Your task to perform on an android device: What's the weather going to be this weekend? Image 0: 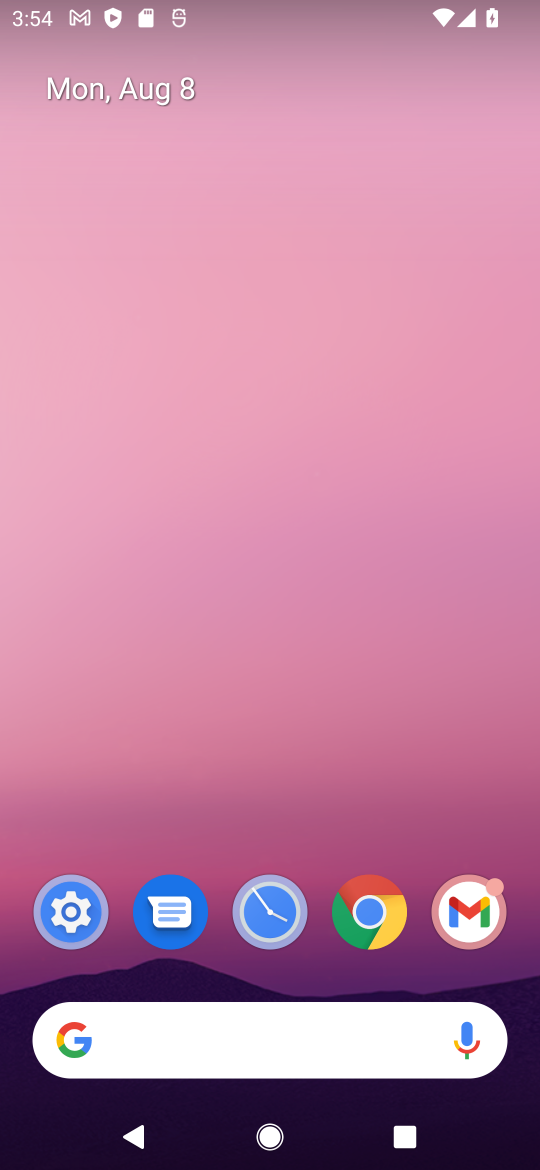
Step 0: click (262, 1040)
Your task to perform on an android device: What's the weather going to be this weekend? Image 1: 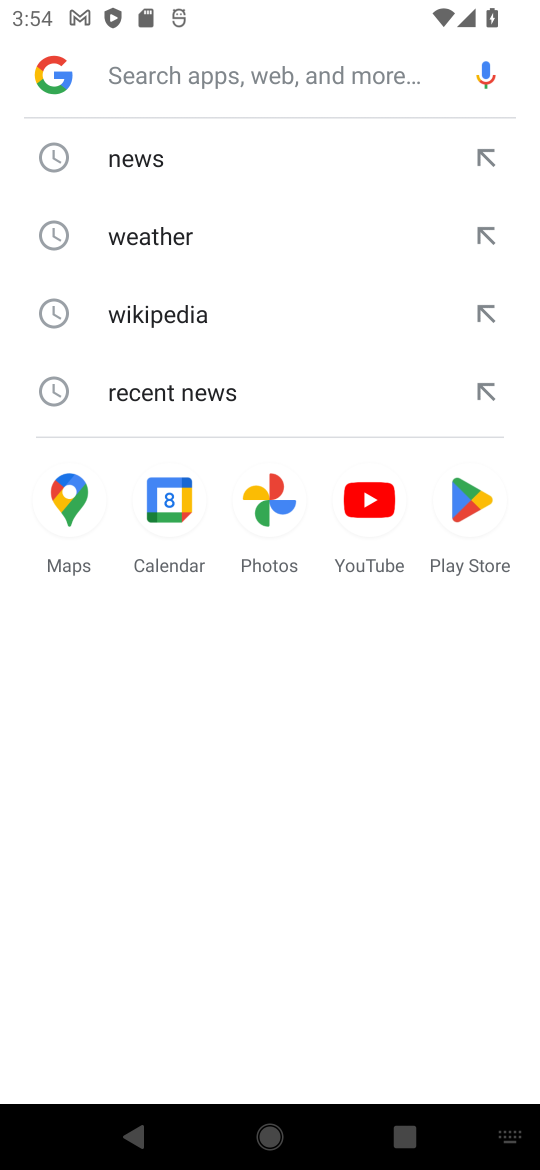
Step 1: click (172, 225)
Your task to perform on an android device: What's the weather going to be this weekend? Image 2: 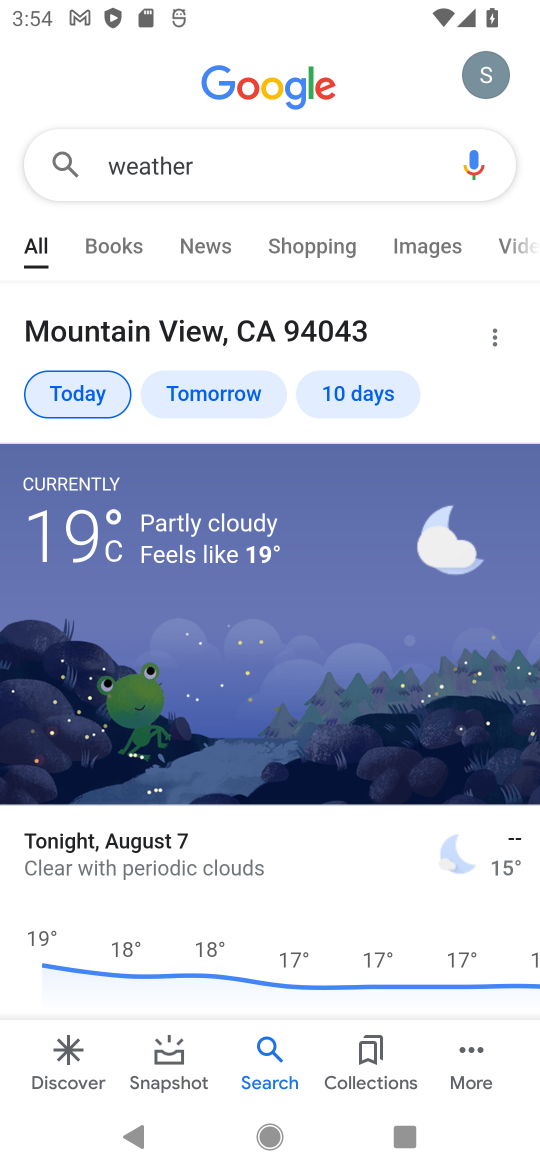
Step 2: click (368, 411)
Your task to perform on an android device: What's the weather going to be this weekend? Image 3: 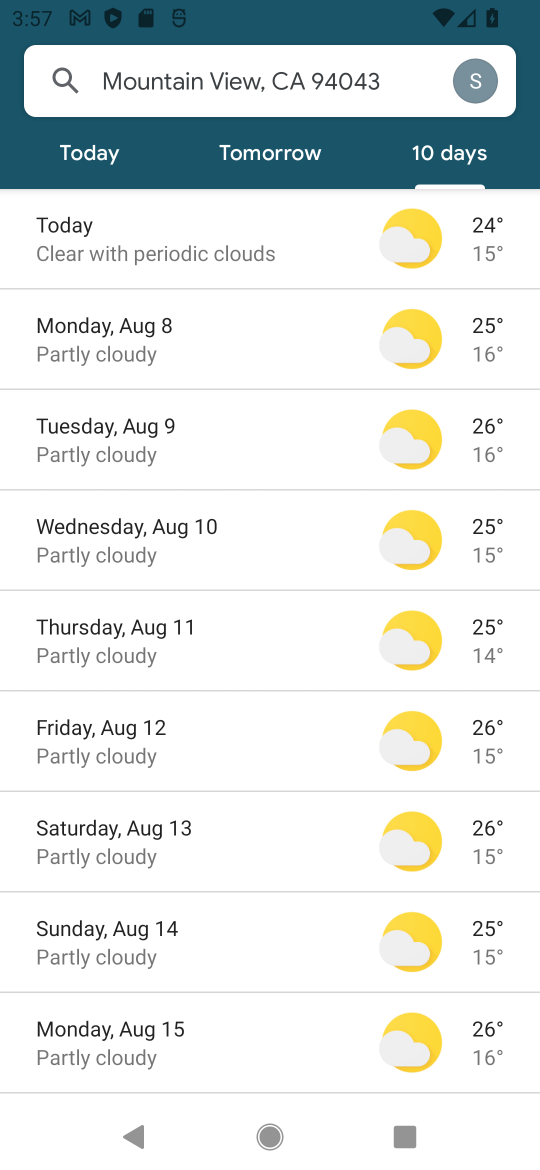
Step 3: task complete